Your task to perform on an android device: check the backup settings in the google photos Image 0: 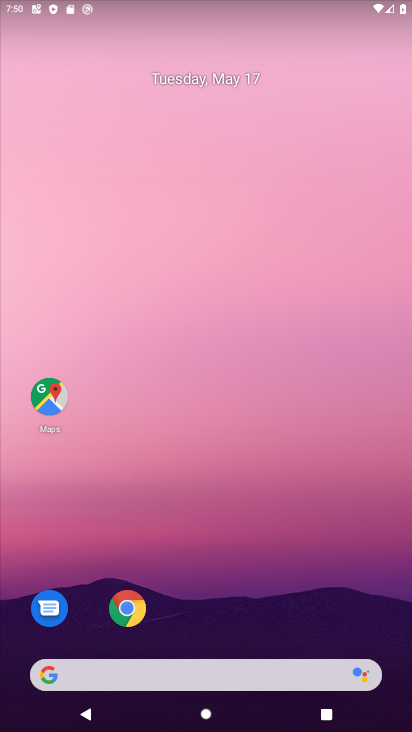
Step 0: drag from (187, 637) to (228, 207)
Your task to perform on an android device: check the backup settings in the google photos Image 1: 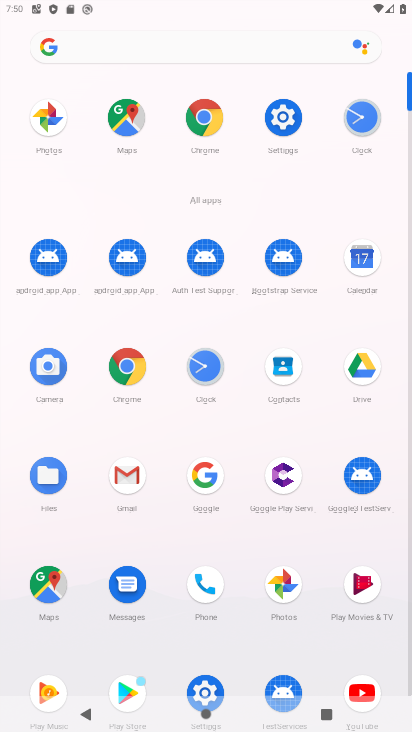
Step 1: click (27, 112)
Your task to perform on an android device: check the backup settings in the google photos Image 2: 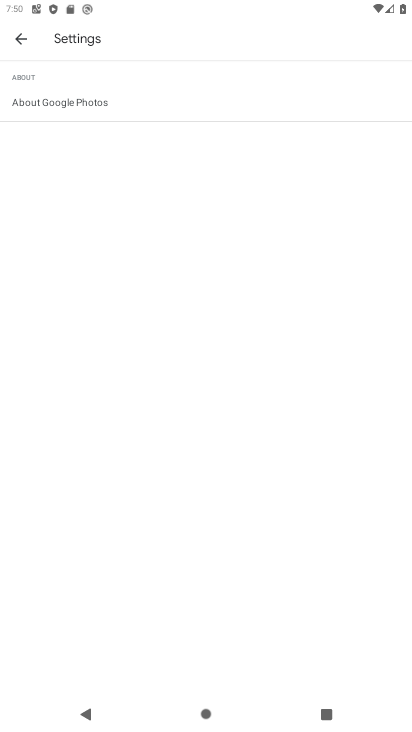
Step 2: click (30, 47)
Your task to perform on an android device: check the backup settings in the google photos Image 3: 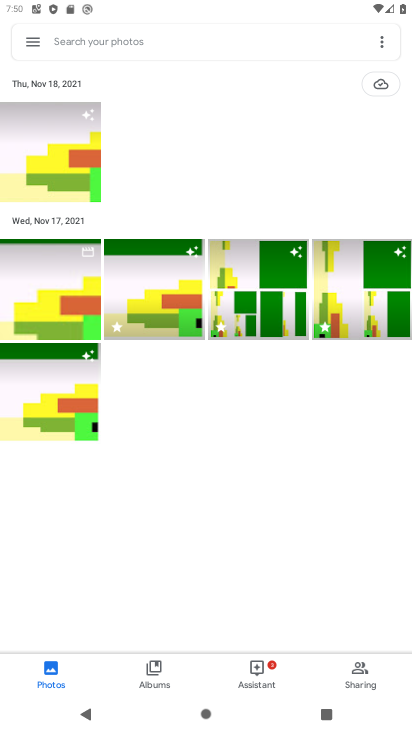
Step 3: click (27, 43)
Your task to perform on an android device: check the backup settings in the google photos Image 4: 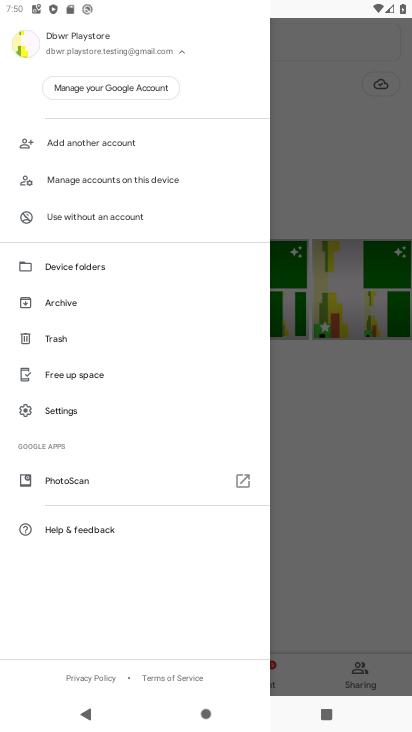
Step 4: click (84, 404)
Your task to perform on an android device: check the backup settings in the google photos Image 5: 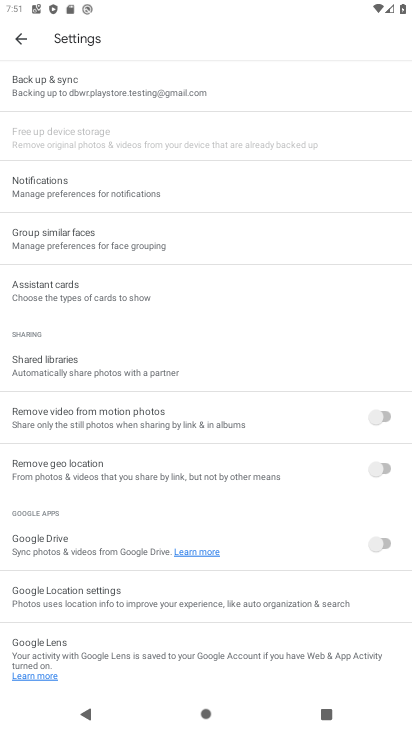
Step 5: click (96, 109)
Your task to perform on an android device: check the backup settings in the google photos Image 6: 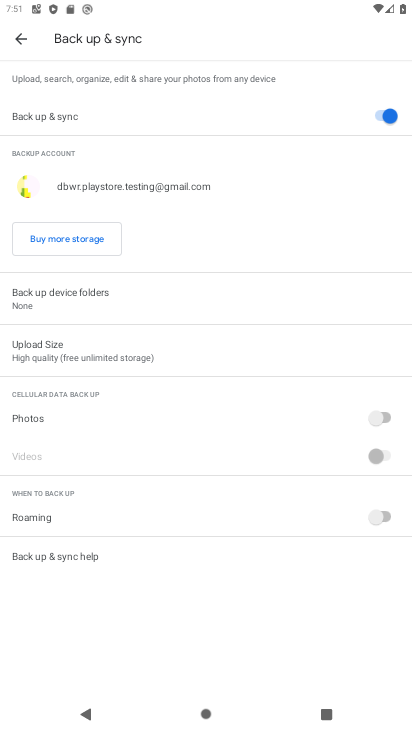
Step 6: task complete